Your task to perform on an android device: Open Chrome and go to settings Image 0: 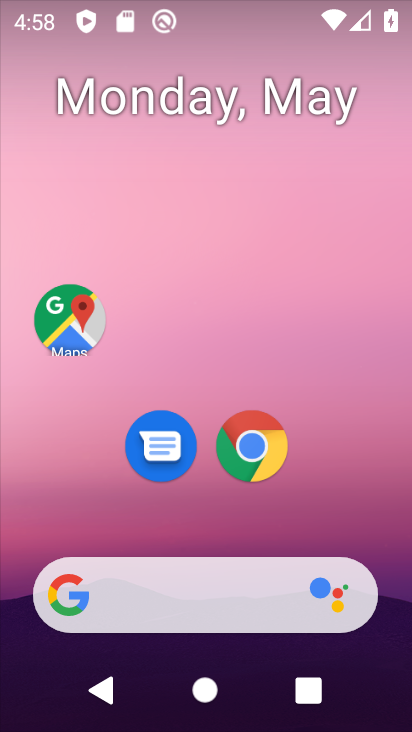
Step 0: click (262, 459)
Your task to perform on an android device: Open Chrome and go to settings Image 1: 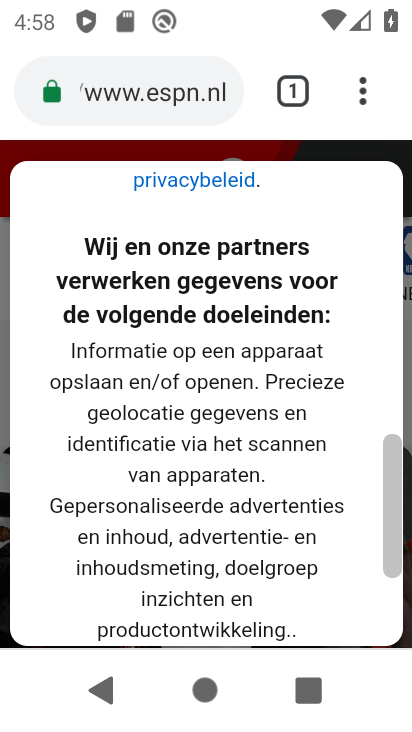
Step 1: click (366, 89)
Your task to perform on an android device: Open Chrome and go to settings Image 2: 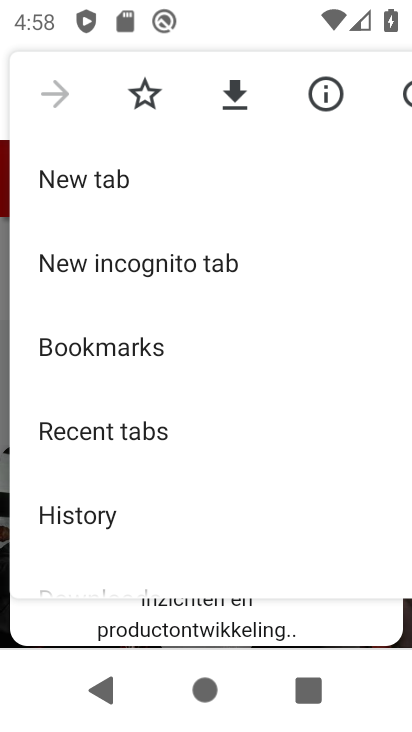
Step 2: drag from (222, 516) to (184, 146)
Your task to perform on an android device: Open Chrome and go to settings Image 3: 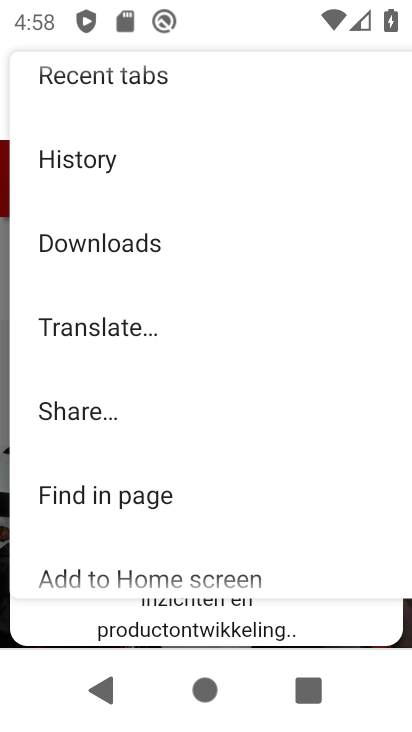
Step 3: drag from (292, 425) to (249, 175)
Your task to perform on an android device: Open Chrome and go to settings Image 4: 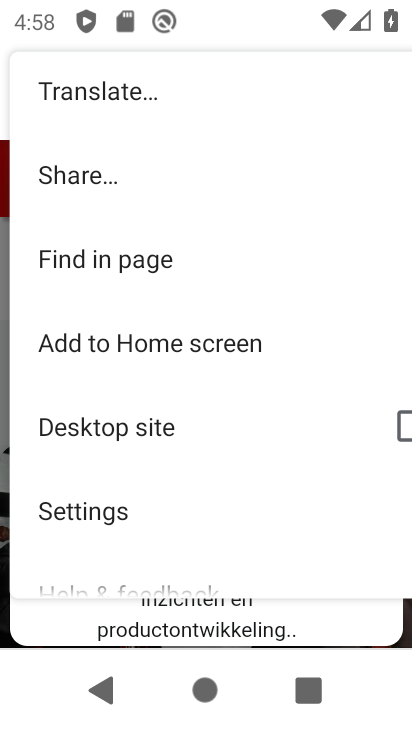
Step 4: click (86, 508)
Your task to perform on an android device: Open Chrome and go to settings Image 5: 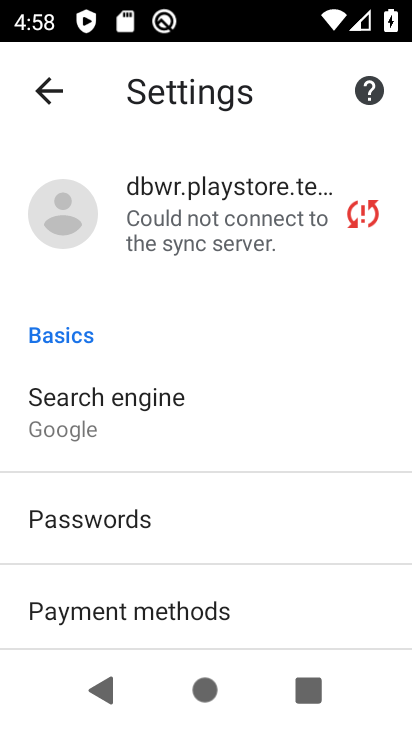
Step 5: task complete